Your task to perform on an android device: Go to sound settings Image 0: 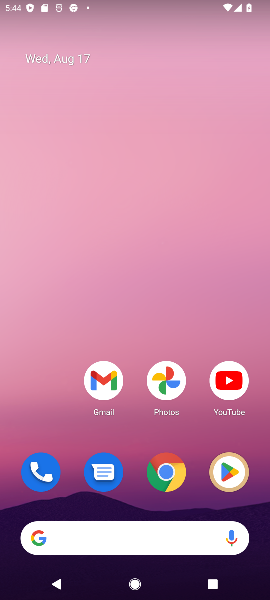
Step 0: drag from (150, 435) to (147, 73)
Your task to perform on an android device: Go to sound settings Image 1: 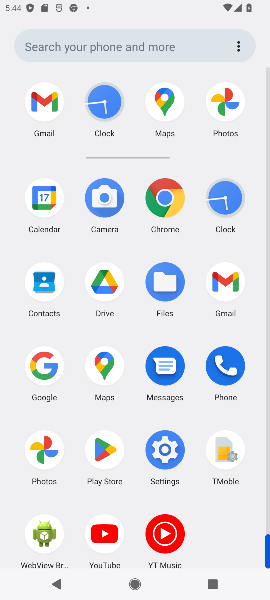
Step 1: click (154, 455)
Your task to perform on an android device: Go to sound settings Image 2: 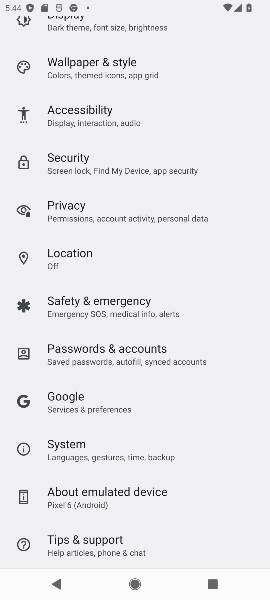
Step 2: drag from (117, 139) to (117, 475)
Your task to perform on an android device: Go to sound settings Image 3: 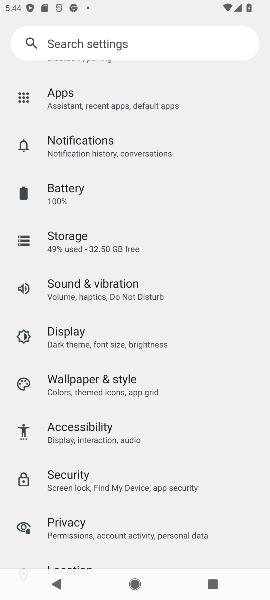
Step 3: click (103, 271)
Your task to perform on an android device: Go to sound settings Image 4: 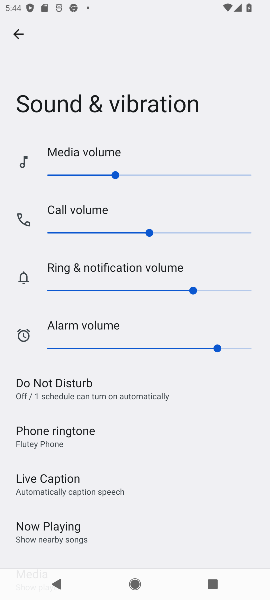
Step 4: task complete